Your task to perform on an android device: toggle wifi Image 0: 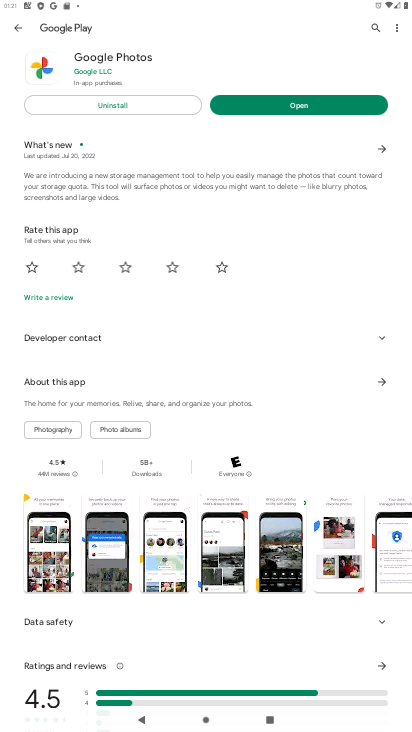
Step 0: press home button
Your task to perform on an android device: toggle wifi Image 1: 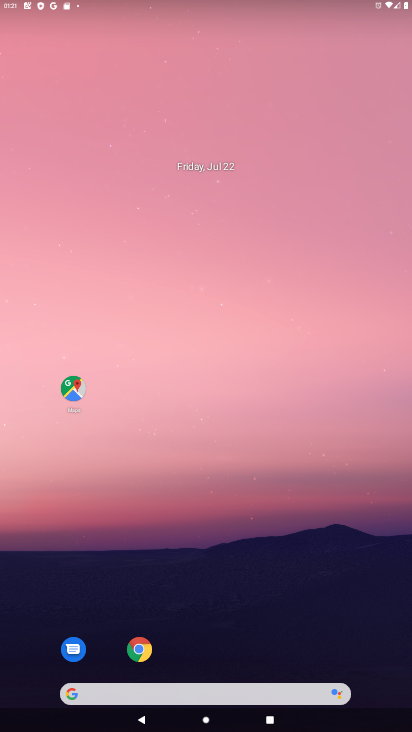
Step 1: drag from (304, 514) to (281, 31)
Your task to perform on an android device: toggle wifi Image 2: 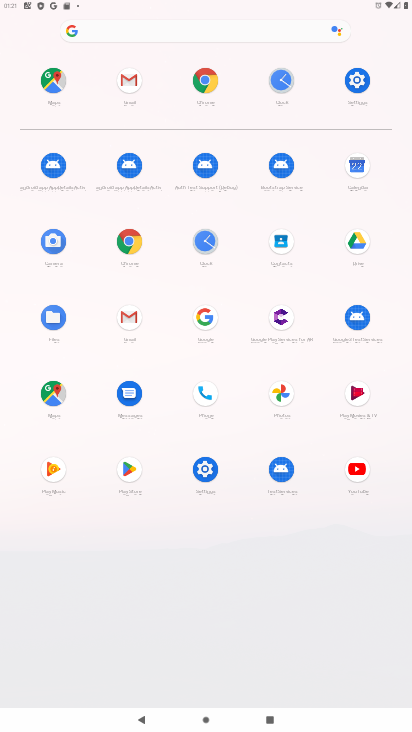
Step 2: click (362, 78)
Your task to perform on an android device: toggle wifi Image 3: 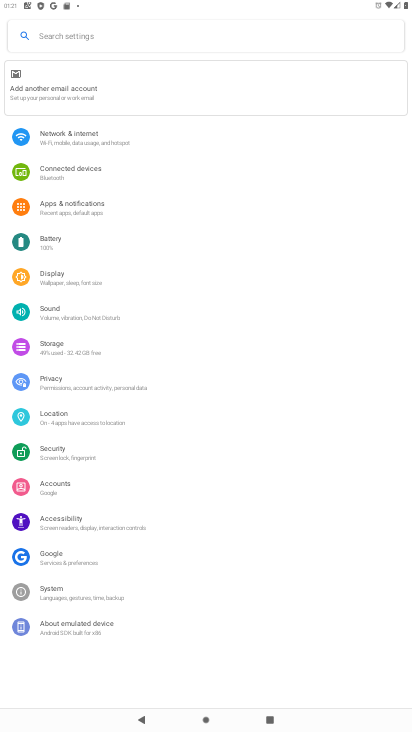
Step 3: click (70, 134)
Your task to perform on an android device: toggle wifi Image 4: 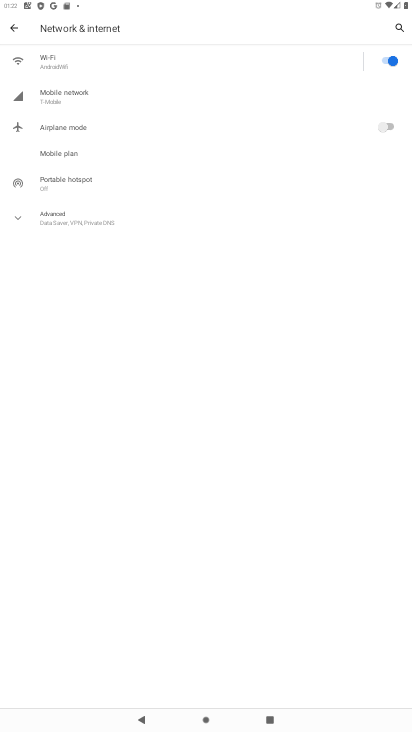
Step 4: click (388, 57)
Your task to perform on an android device: toggle wifi Image 5: 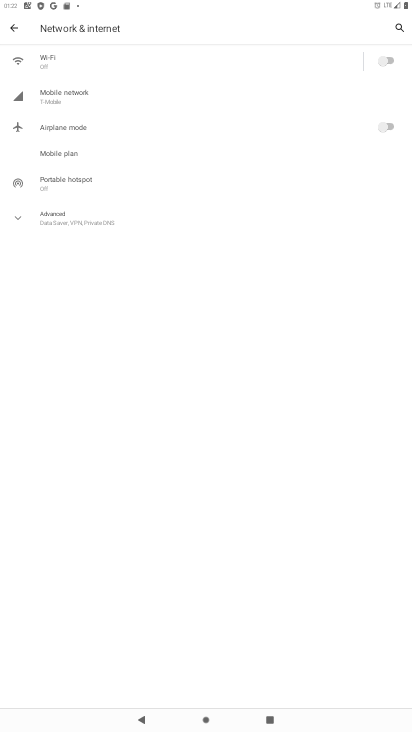
Step 5: task complete